Your task to perform on an android device: set the stopwatch Image 0: 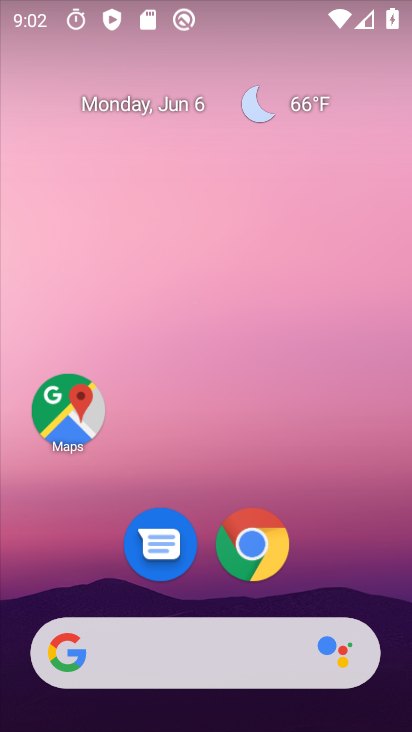
Step 0: drag from (340, 570) to (263, 173)
Your task to perform on an android device: set the stopwatch Image 1: 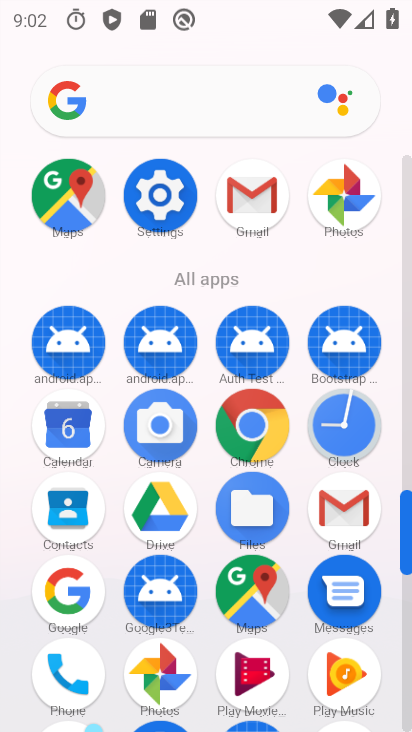
Step 1: click (360, 406)
Your task to perform on an android device: set the stopwatch Image 2: 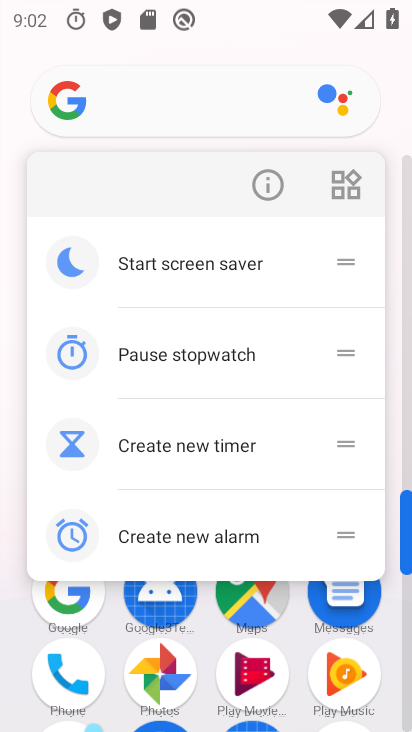
Step 2: click (410, 446)
Your task to perform on an android device: set the stopwatch Image 3: 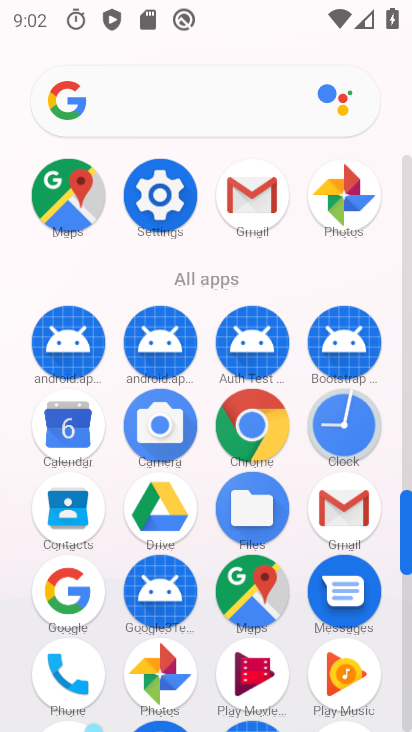
Step 3: click (362, 410)
Your task to perform on an android device: set the stopwatch Image 4: 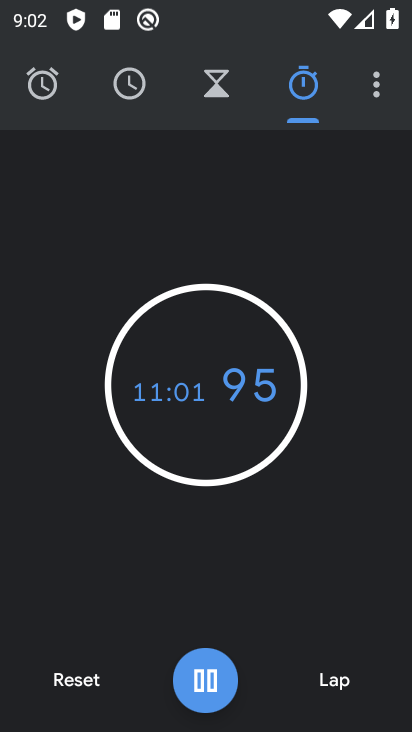
Step 4: task complete